Your task to perform on an android device: turn on translation in the chrome app Image 0: 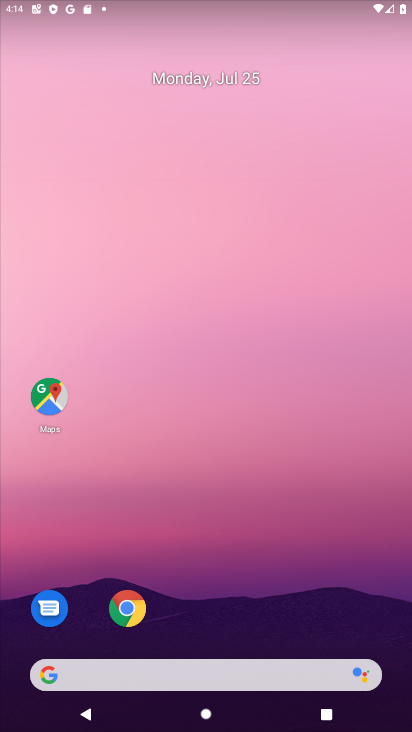
Step 0: press home button
Your task to perform on an android device: turn on translation in the chrome app Image 1: 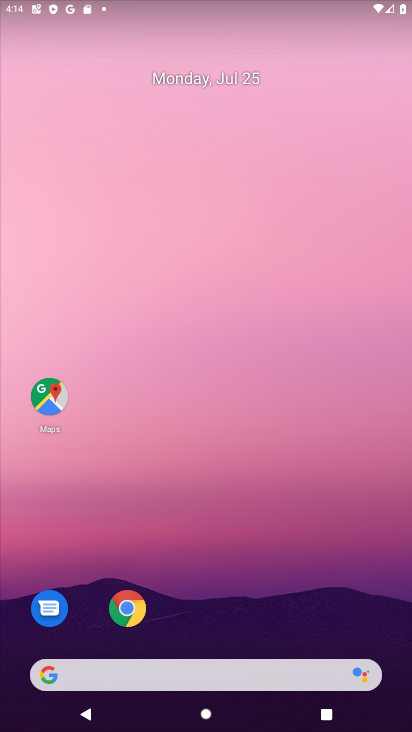
Step 1: drag from (211, 645) to (196, 1)
Your task to perform on an android device: turn on translation in the chrome app Image 2: 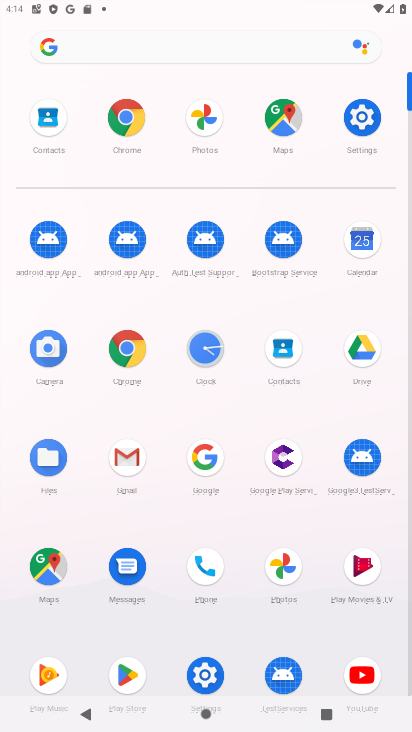
Step 2: click (125, 342)
Your task to perform on an android device: turn on translation in the chrome app Image 3: 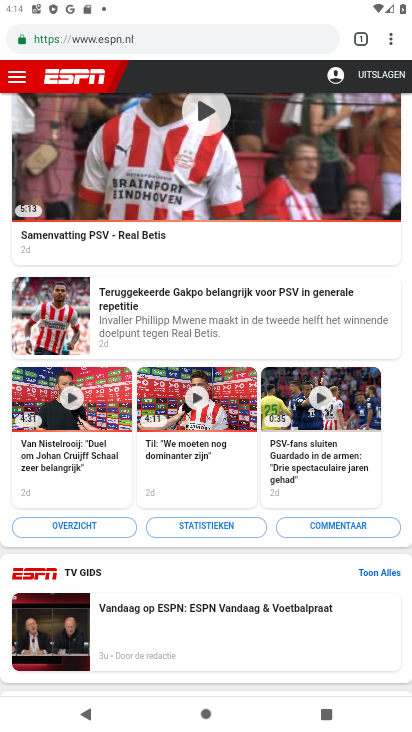
Step 3: click (392, 34)
Your task to perform on an android device: turn on translation in the chrome app Image 4: 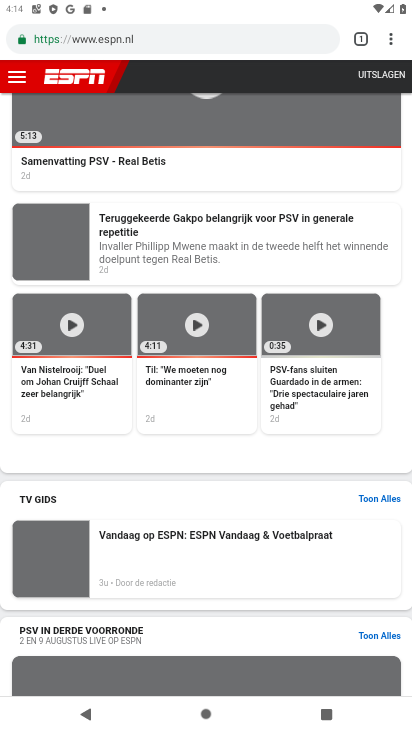
Step 4: click (389, 35)
Your task to perform on an android device: turn on translation in the chrome app Image 5: 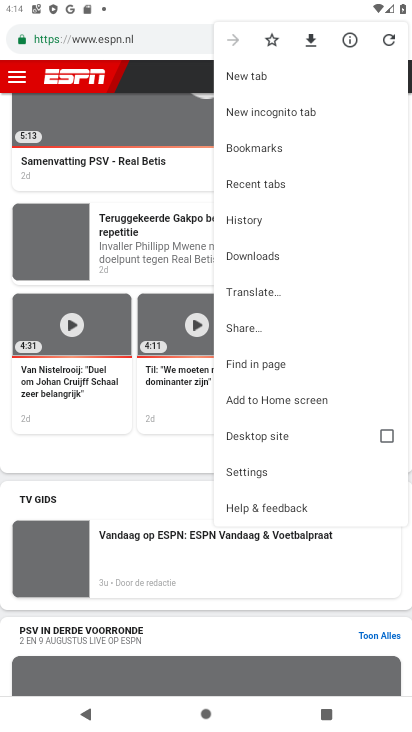
Step 5: click (269, 471)
Your task to perform on an android device: turn on translation in the chrome app Image 6: 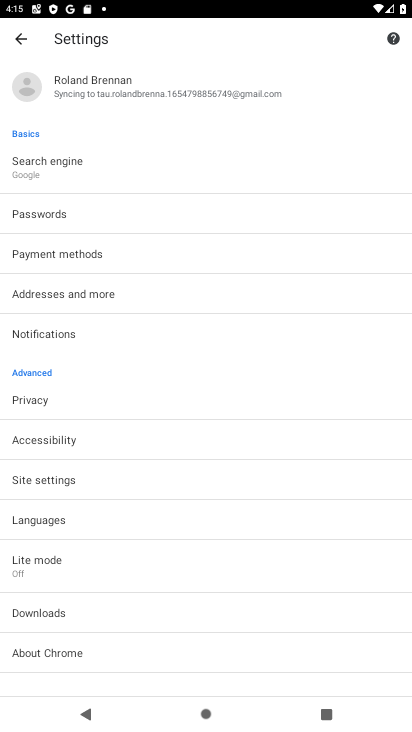
Step 6: click (74, 518)
Your task to perform on an android device: turn on translation in the chrome app Image 7: 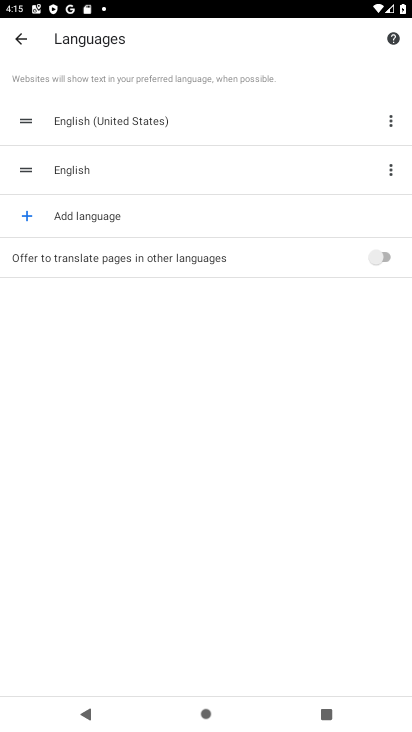
Step 7: click (389, 252)
Your task to perform on an android device: turn on translation in the chrome app Image 8: 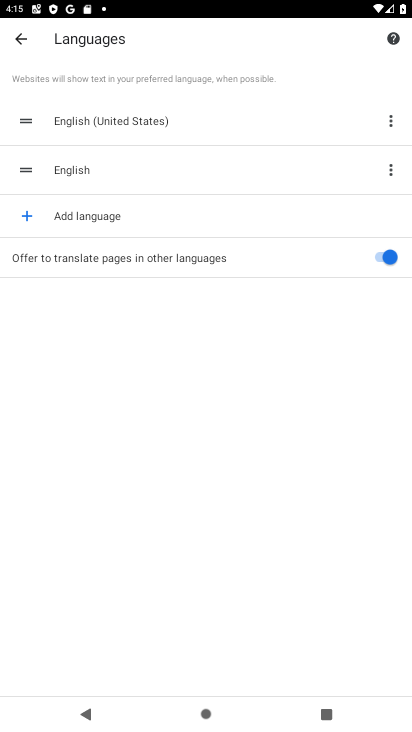
Step 8: task complete